Your task to perform on an android device: delete the emails in spam in the gmail app Image 0: 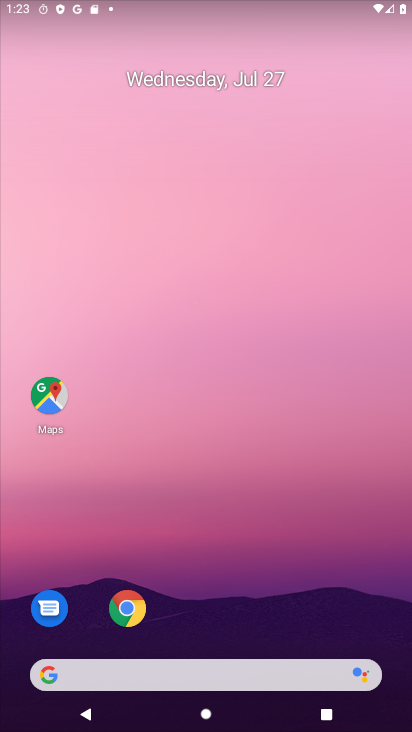
Step 0: drag from (171, 589) to (253, 110)
Your task to perform on an android device: delete the emails in spam in the gmail app Image 1: 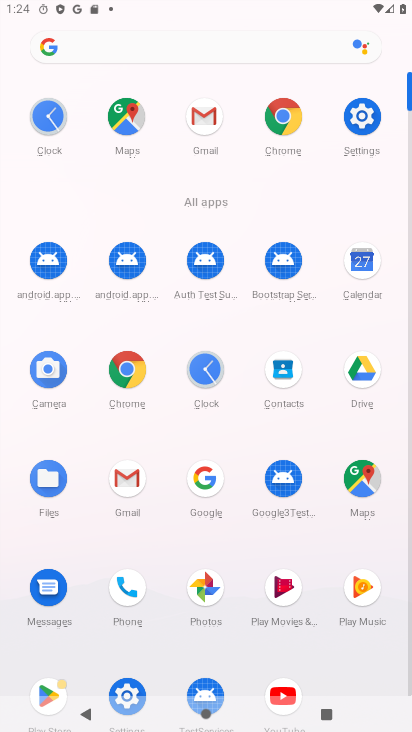
Step 1: click (209, 208)
Your task to perform on an android device: delete the emails in spam in the gmail app Image 2: 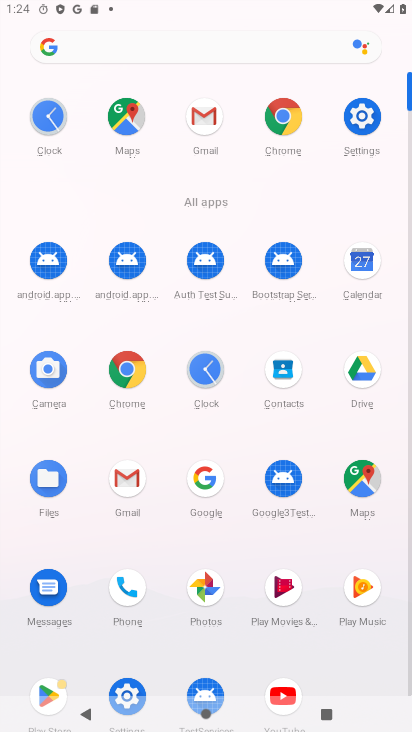
Step 2: click (198, 124)
Your task to perform on an android device: delete the emails in spam in the gmail app Image 3: 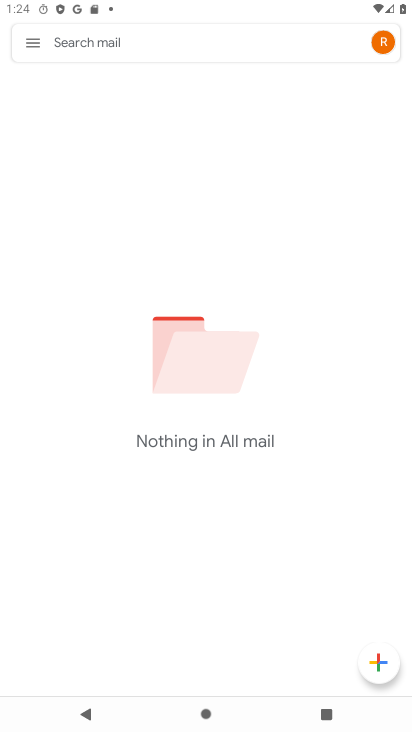
Step 3: click (33, 41)
Your task to perform on an android device: delete the emails in spam in the gmail app Image 4: 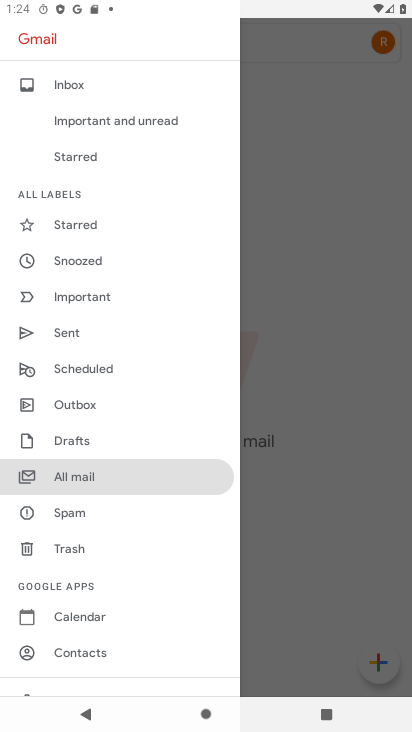
Step 4: click (65, 514)
Your task to perform on an android device: delete the emails in spam in the gmail app Image 5: 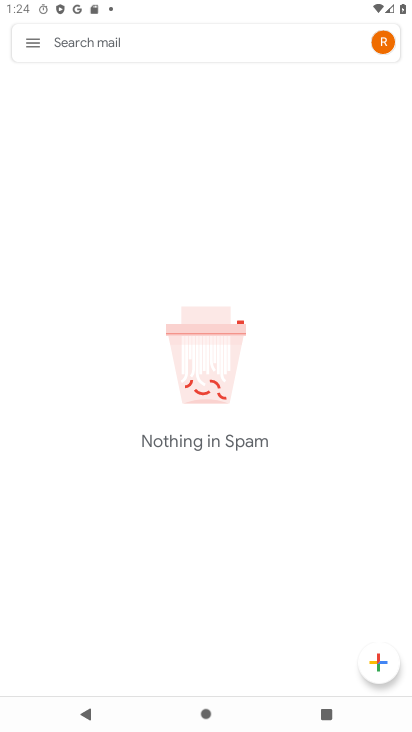
Step 5: task complete